Your task to perform on an android device: What's on my calendar tomorrow? Image 0: 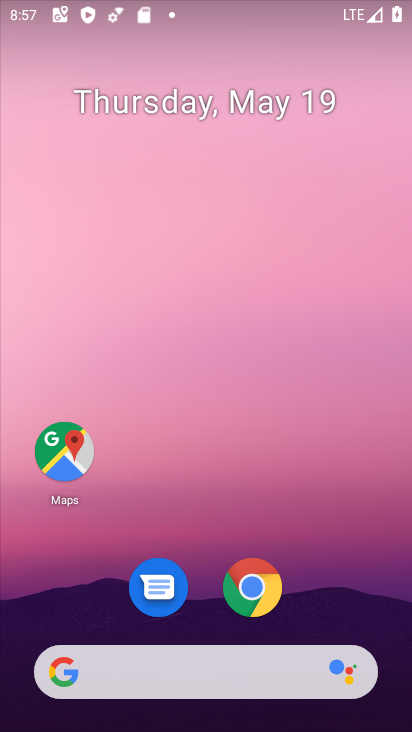
Step 0: drag from (303, 575) to (235, 17)
Your task to perform on an android device: What's on my calendar tomorrow? Image 1: 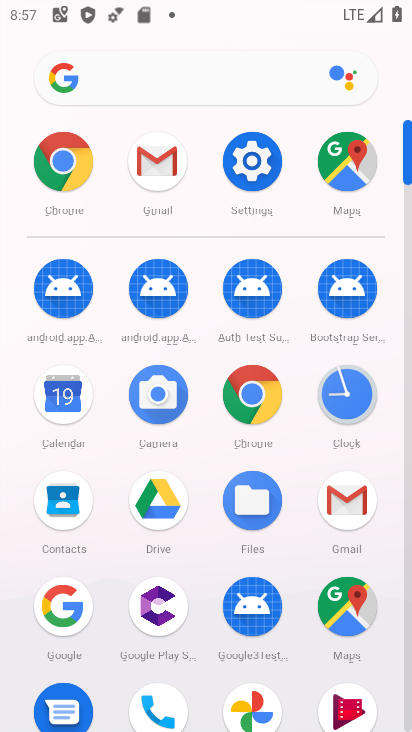
Step 1: drag from (20, 543) to (34, 205)
Your task to perform on an android device: What's on my calendar tomorrow? Image 2: 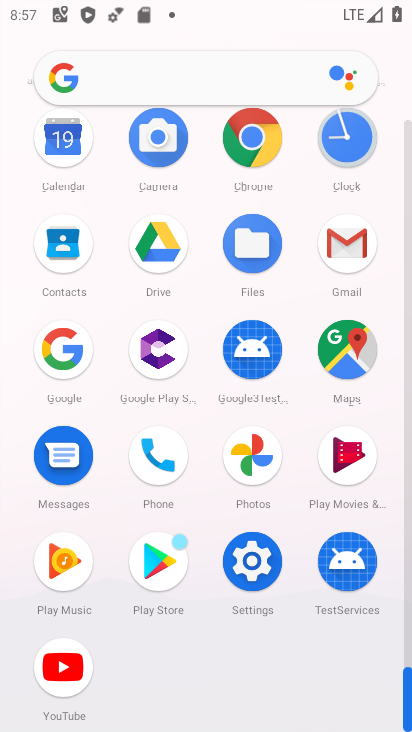
Step 2: click (57, 114)
Your task to perform on an android device: What's on my calendar tomorrow? Image 3: 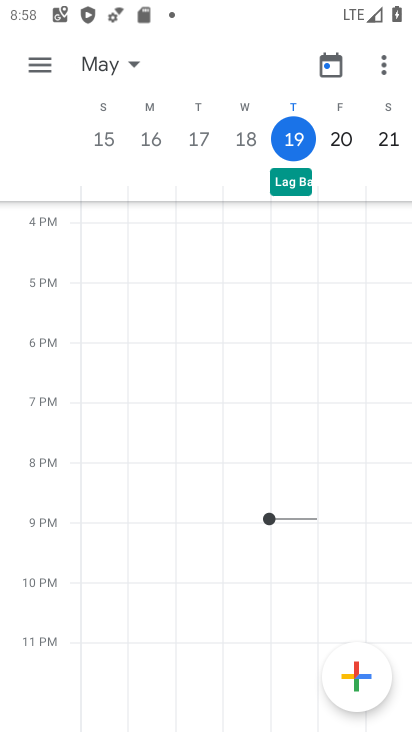
Step 3: click (334, 132)
Your task to perform on an android device: What's on my calendar tomorrow? Image 4: 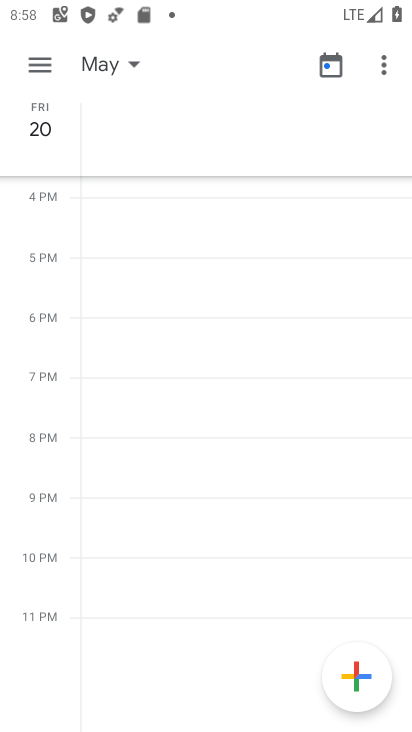
Step 4: task complete